Your task to perform on an android device: change the upload size in google photos Image 0: 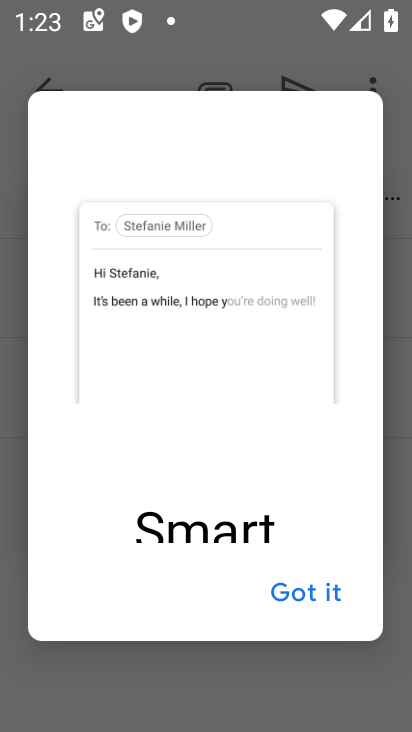
Step 0: press home button
Your task to perform on an android device: change the upload size in google photos Image 1: 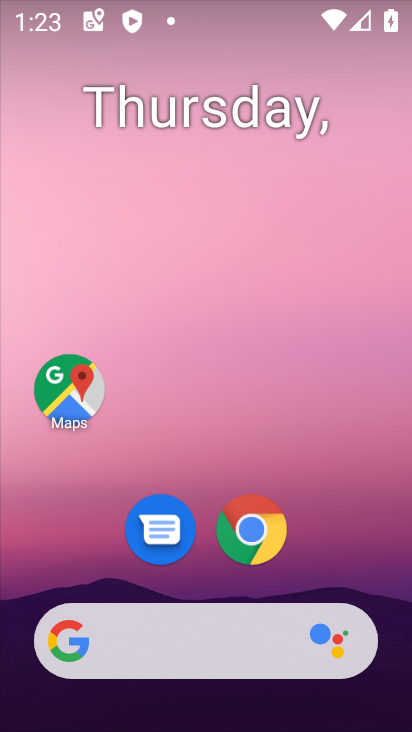
Step 1: drag from (381, 559) to (389, 151)
Your task to perform on an android device: change the upload size in google photos Image 2: 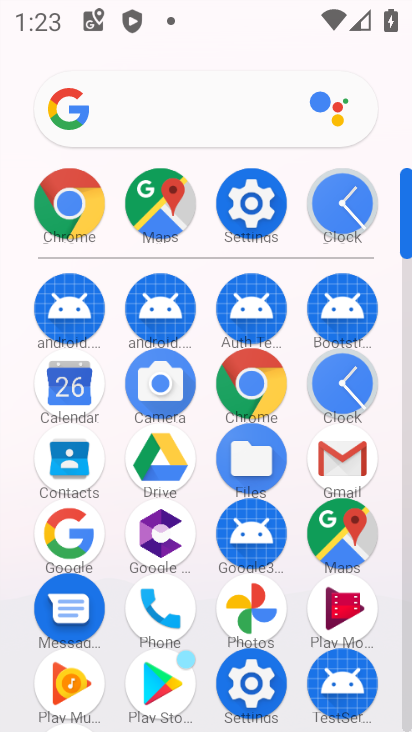
Step 2: click (264, 626)
Your task to perform on an android device: change the upload size in google photos Image 3: 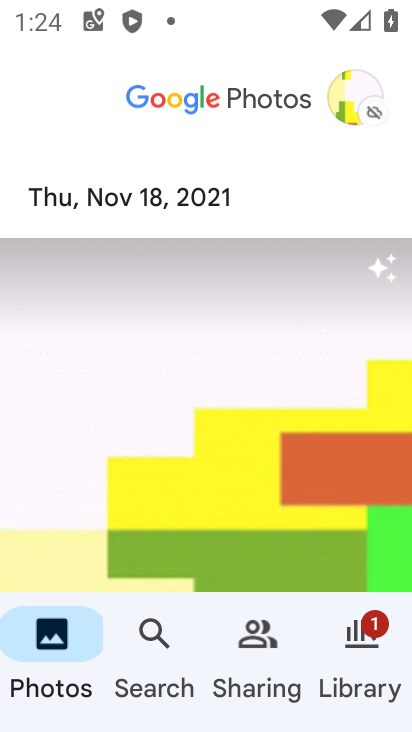
Step 3: click (336, 115)
Your task to perform on an android device: change the upload size in google photos Image 4: 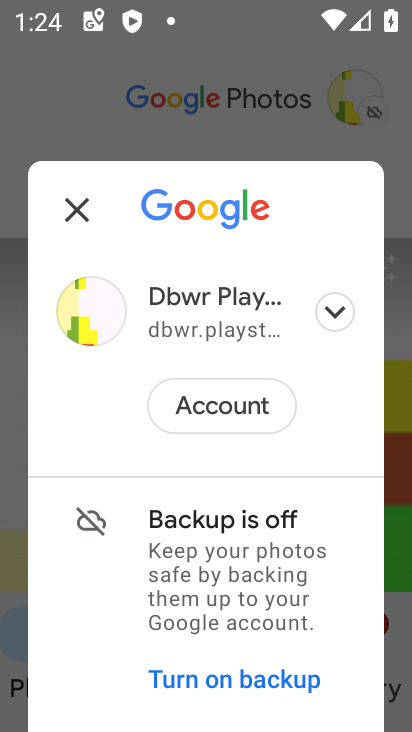
Step 4: drag from (281, 601) to (305, 264)
Your task to perform on an android device: change the upload size in google photos Image 5: 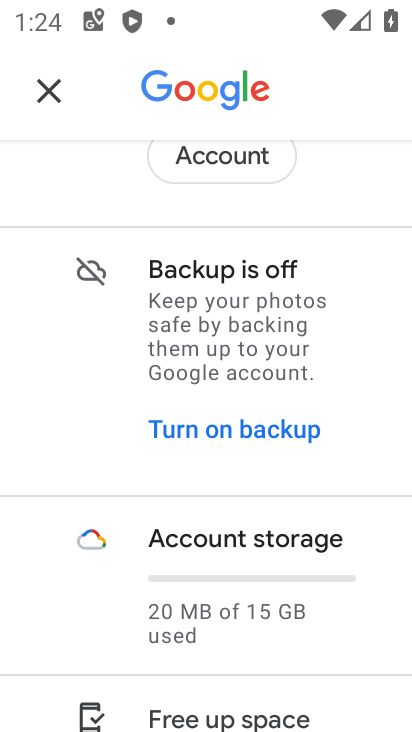
Step 5: drag from (324, 676) to (345, 322)
Your task to perform on an android device: change the upload size in google photos Image 6: 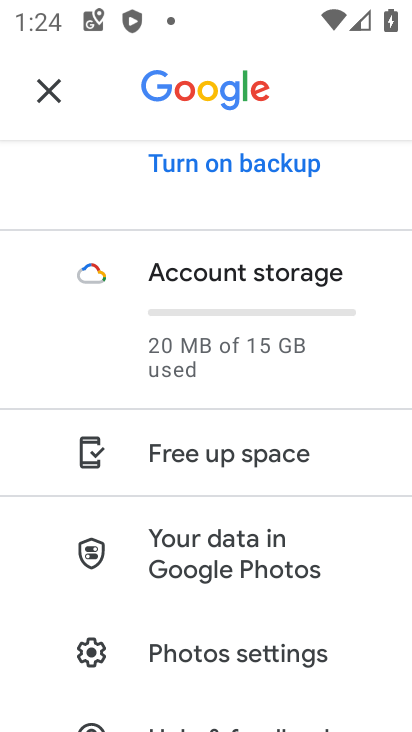
Step 6: click (267, 658)
Your task to perform on an android device: change the upload size in google photos Image 7: 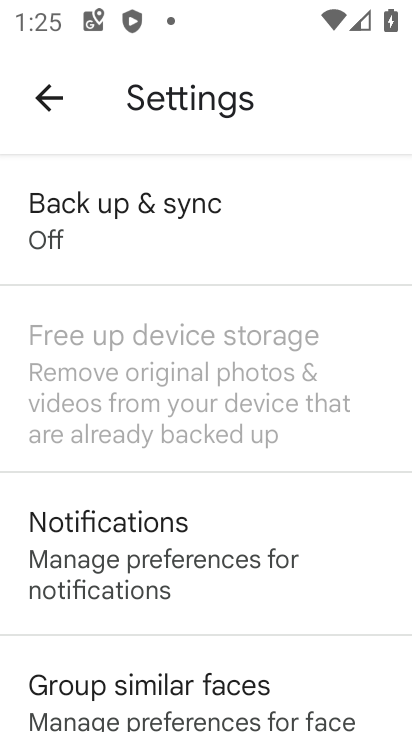
Step 7: click (210, 230)
Your task to perform on an android device: change the upload size in google photos Image 8: 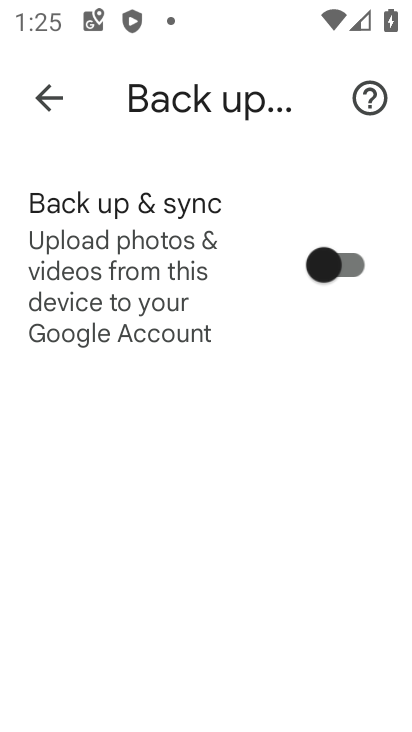
Step 8: click (59, 112)
Your task to perform on an android device: change the upload size in google photos Image 9: 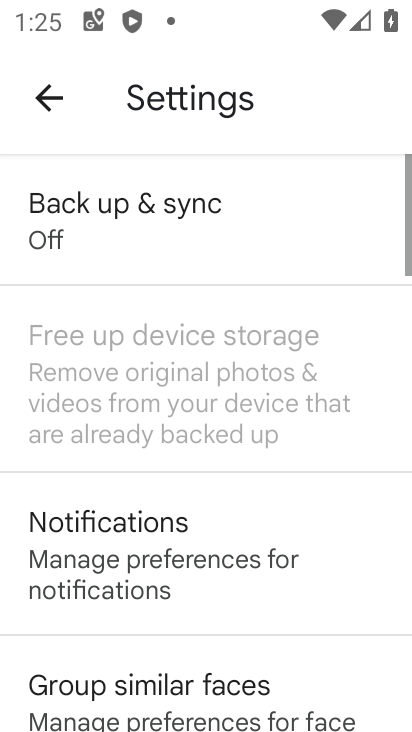
Step 9: task complete